Your task to perform on an android device: install app "Viber Messenger" Image 0: 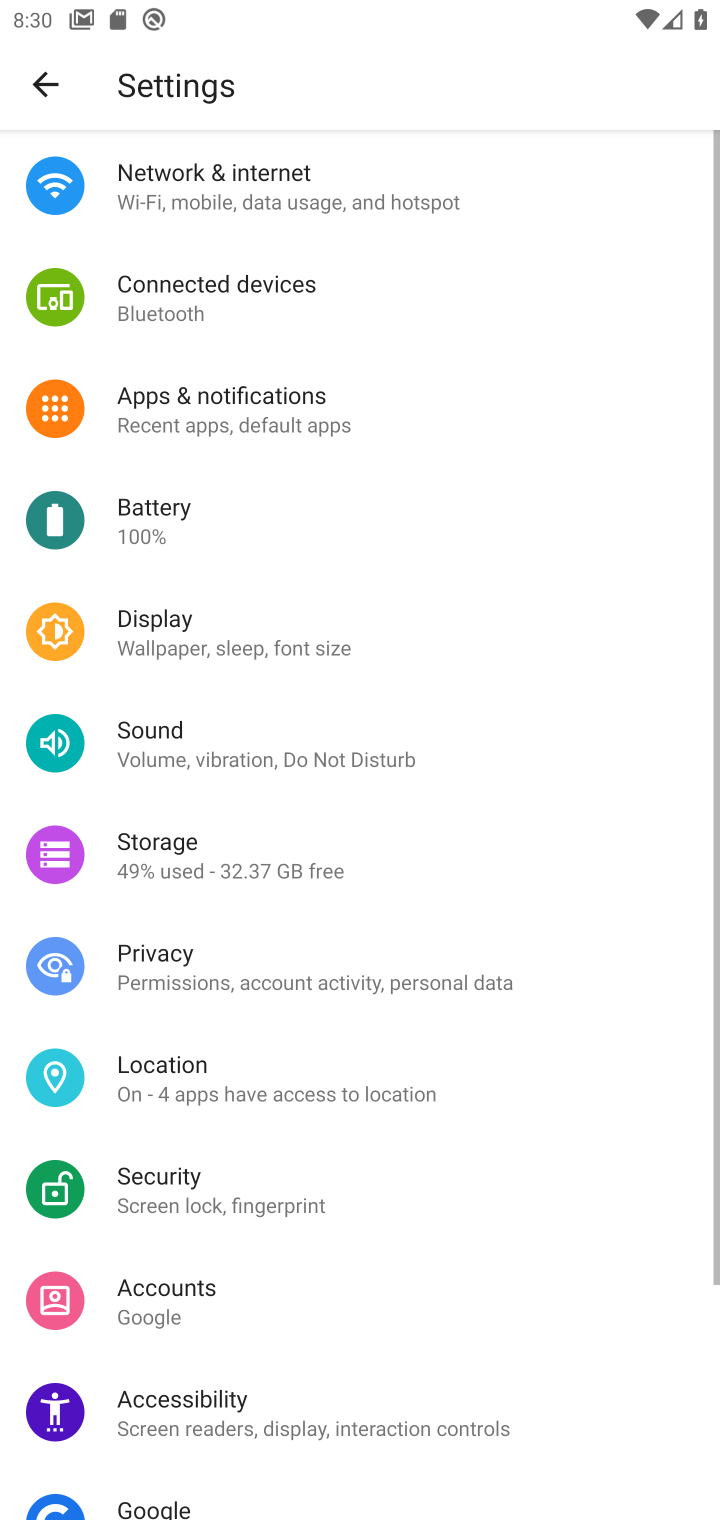
Step 0: press home button
Your task to perform on an android device: install app "Viber Messenger" Image 1: 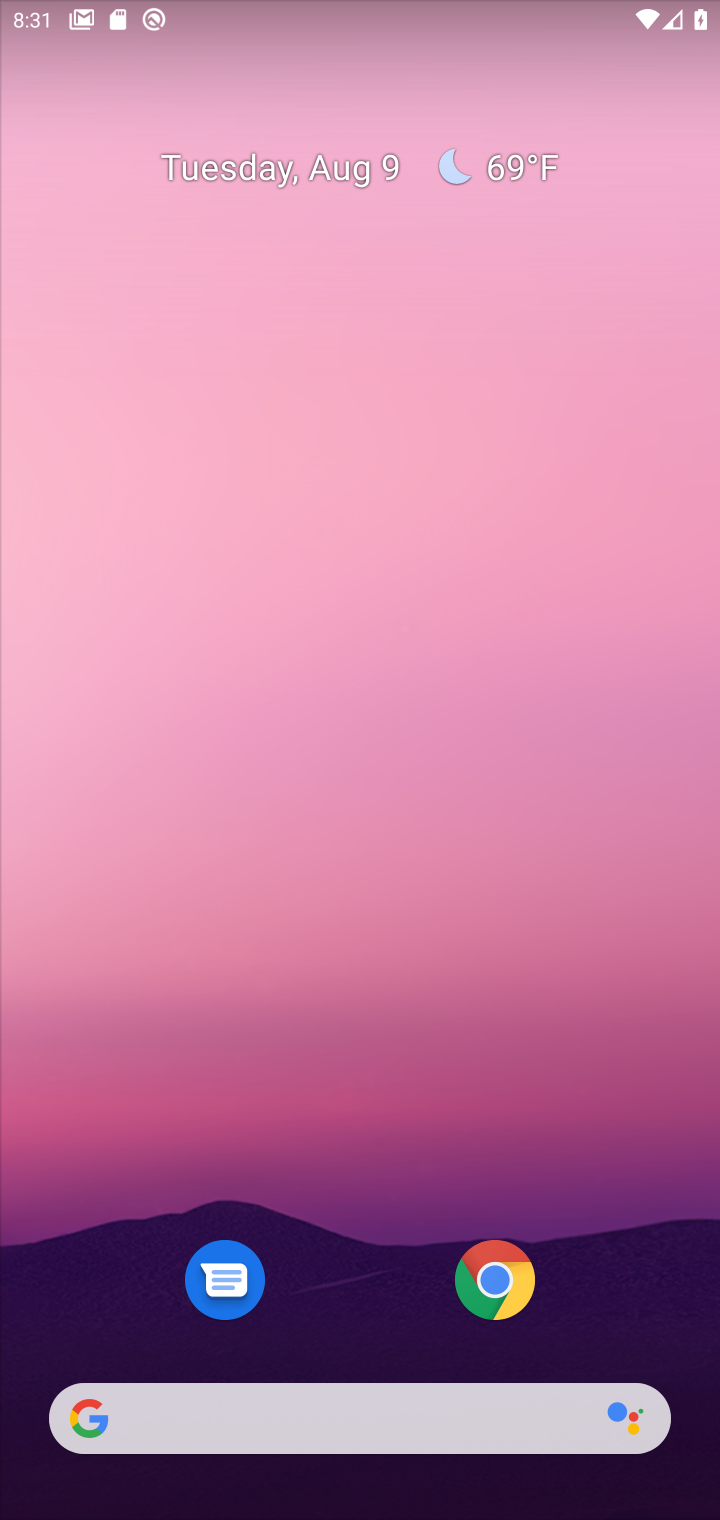
Step 1: drag from (237, 1390) to (179, 99)
Your task to perform on an android device: install app "Viber Messenger" Image 2: 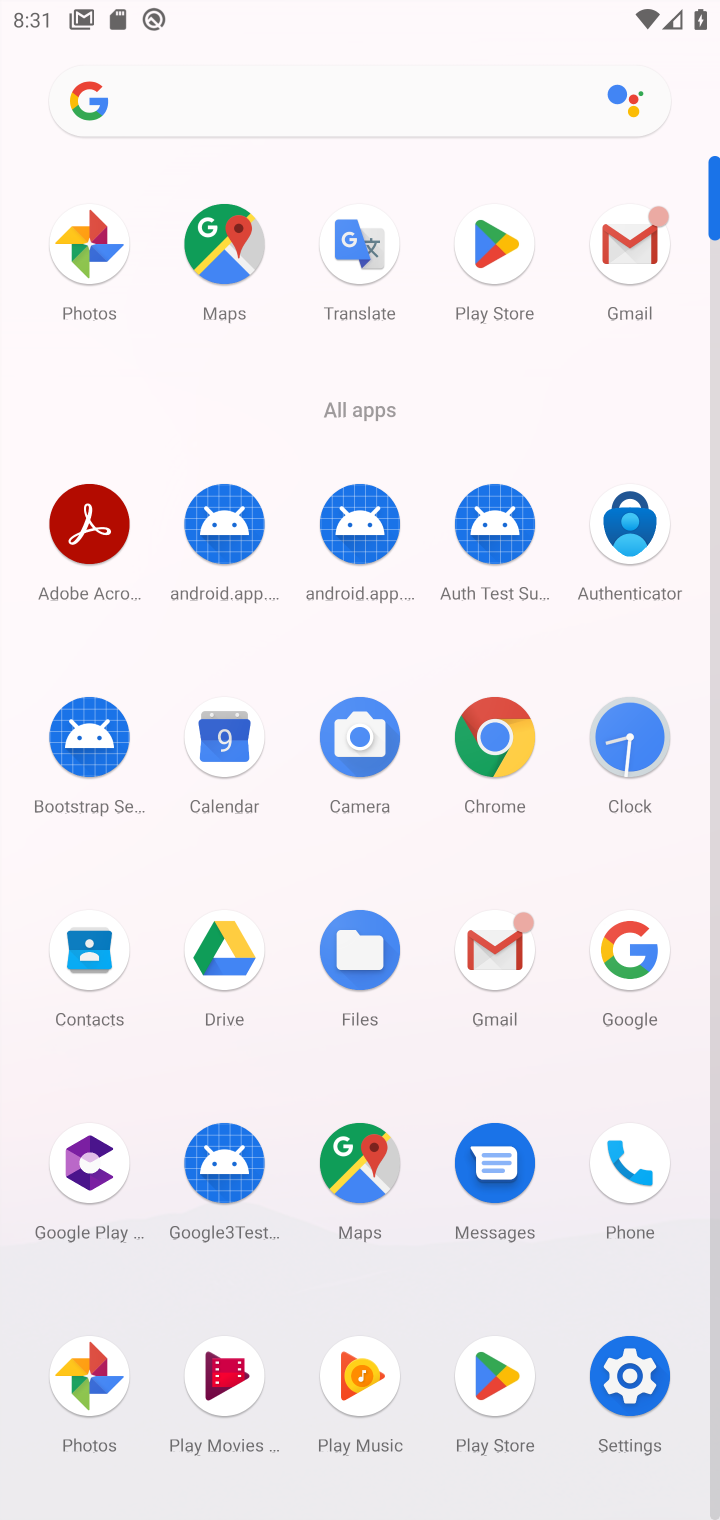
Step 2: click (500, 1400)
Your task to perform on an android device: install app "Viber Messenger" Image 3: 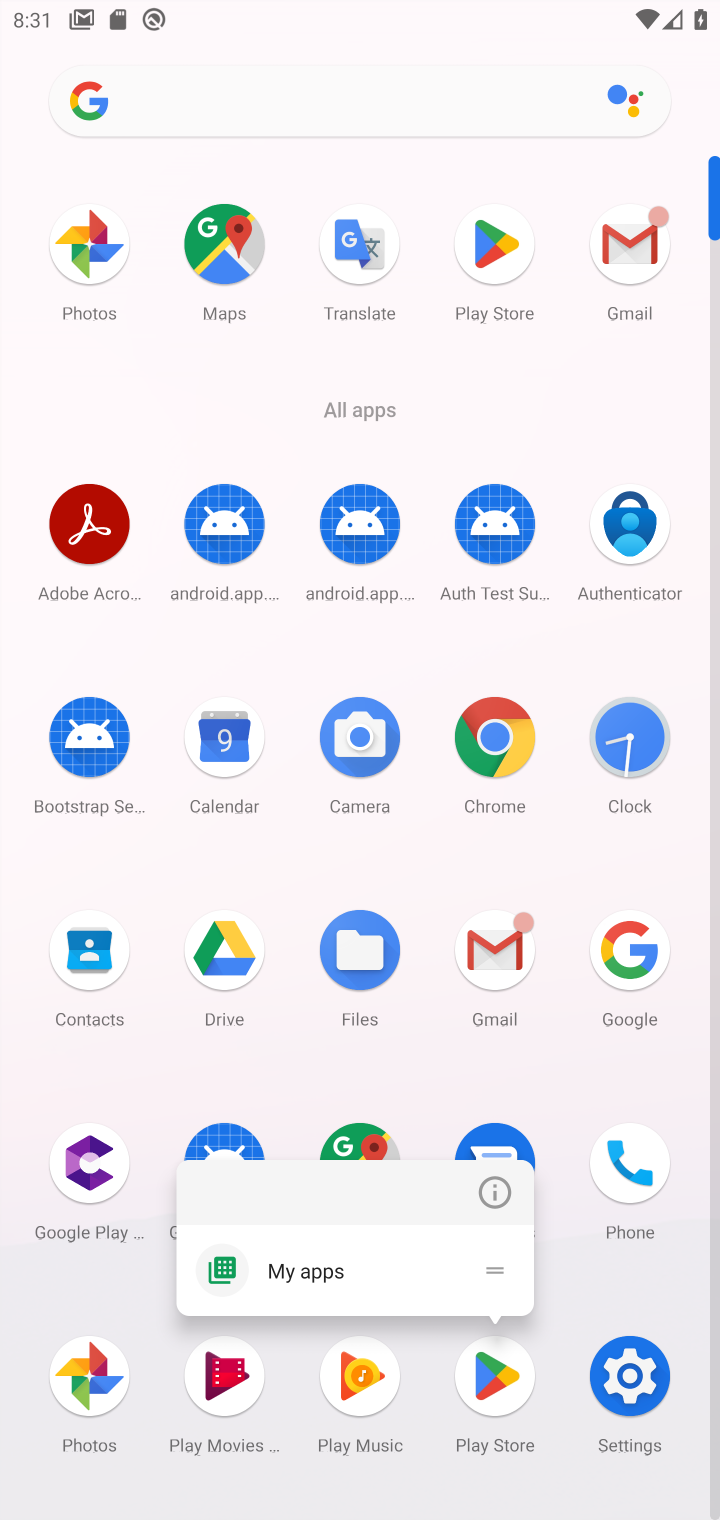
Step 3: click (497, 1371)
Your task to perform on an android device: install app "Viber Messenger" Image 4: 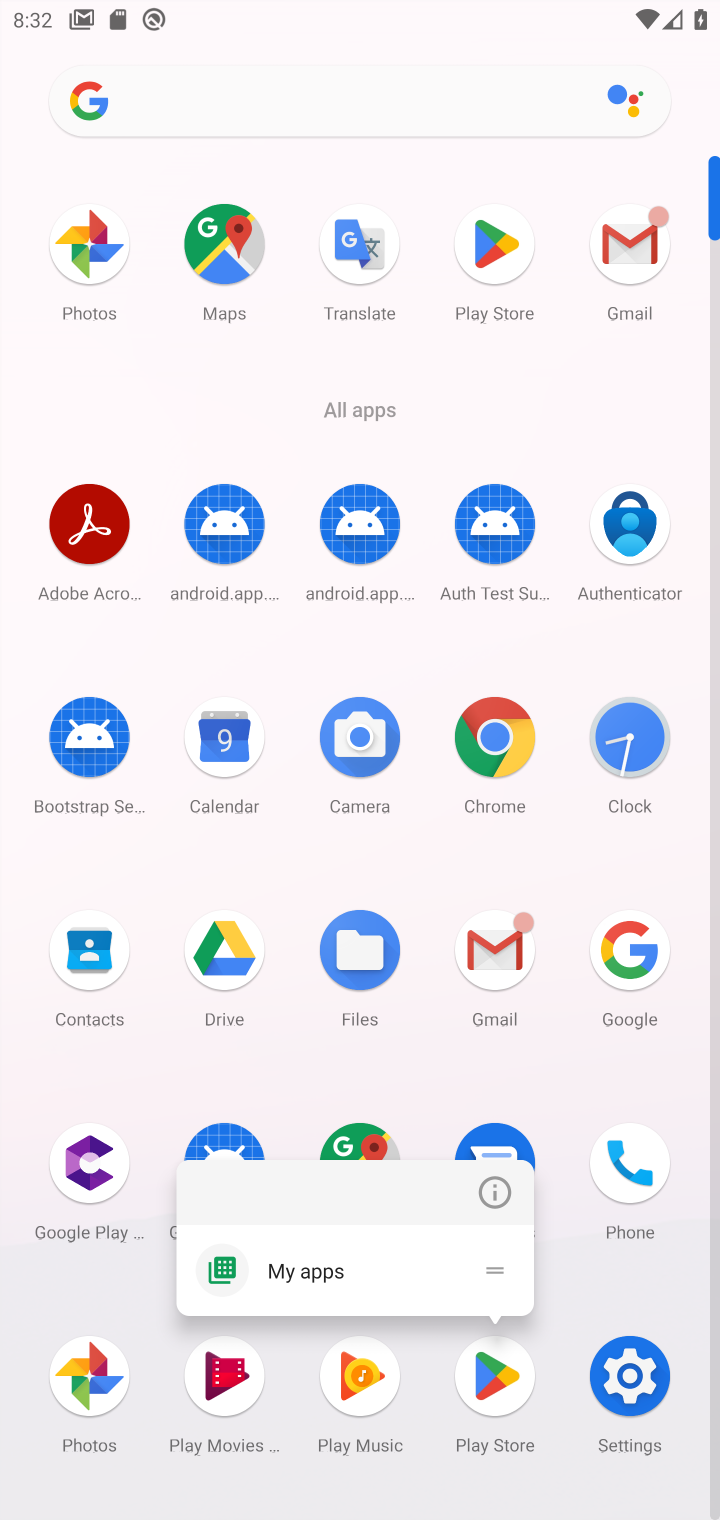
Step 4: click (486, 257)
Your task to perform on an android device: install app "Viber Messenger" Image 5: 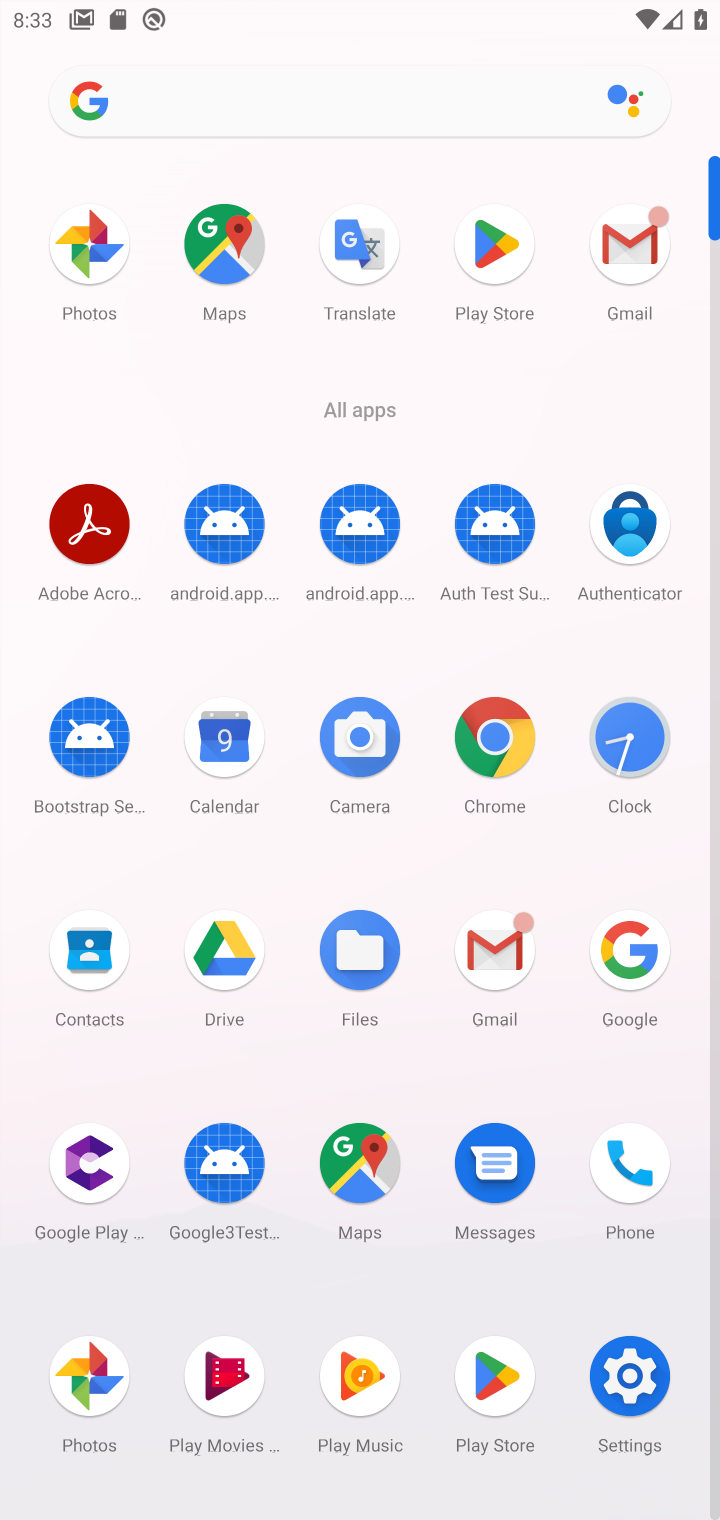
Step 5: click (497, 248)
Your task to perform on an android device: install app "Viber Messenger" Image 6: 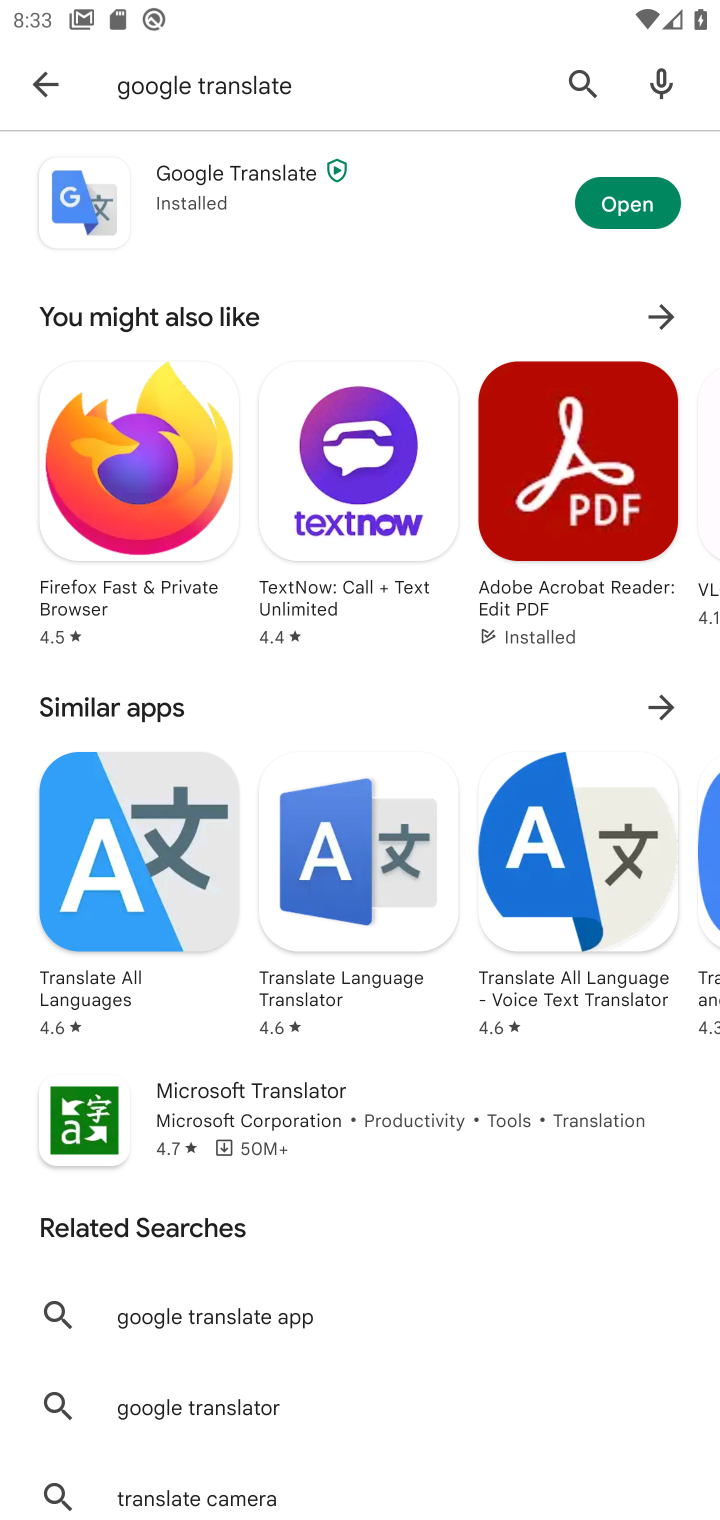
Step 6: click (582, 79)
Your task to perform on an android device: install app "Viber Messenger" Image 7: 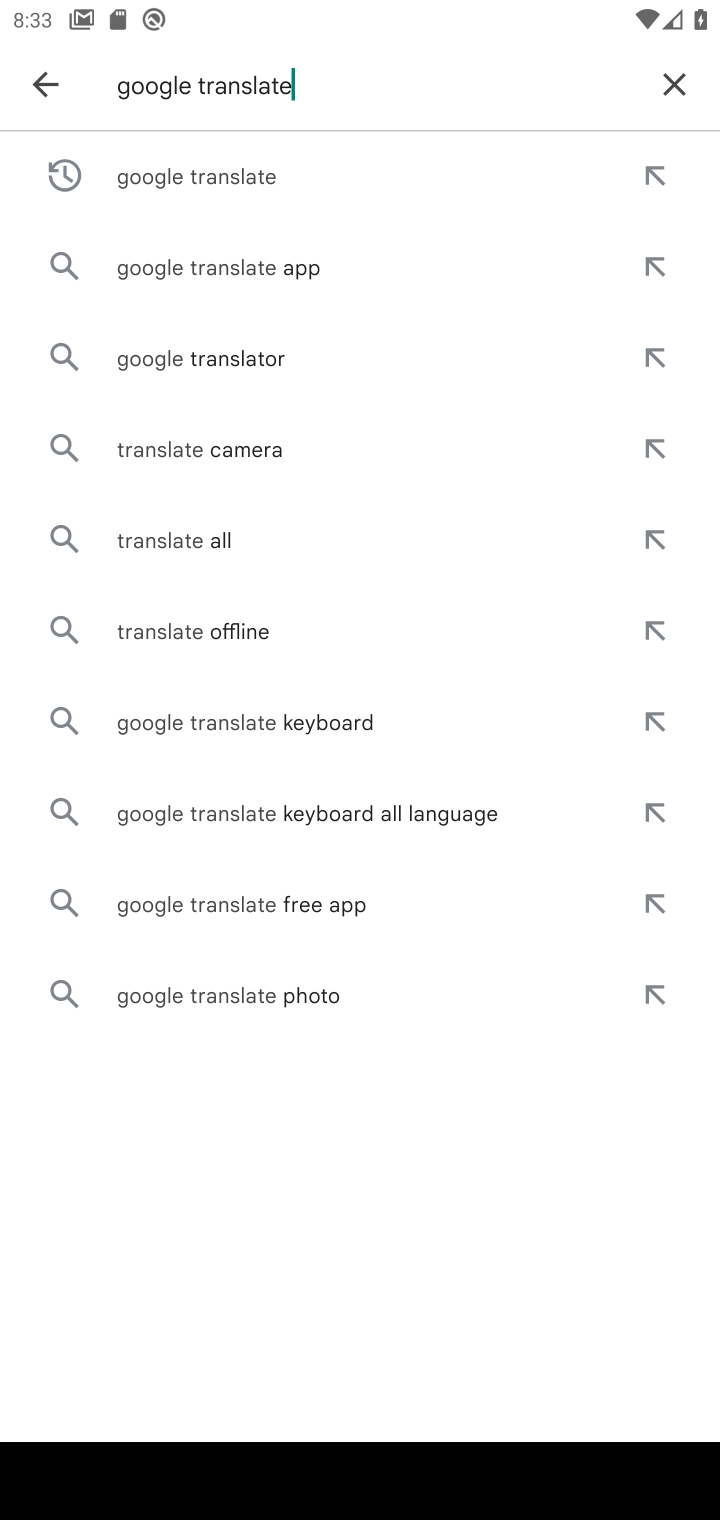
Step 7: click (670, 86)
Your task to perform on an android device: install app "Viber Messenger" Image 8: 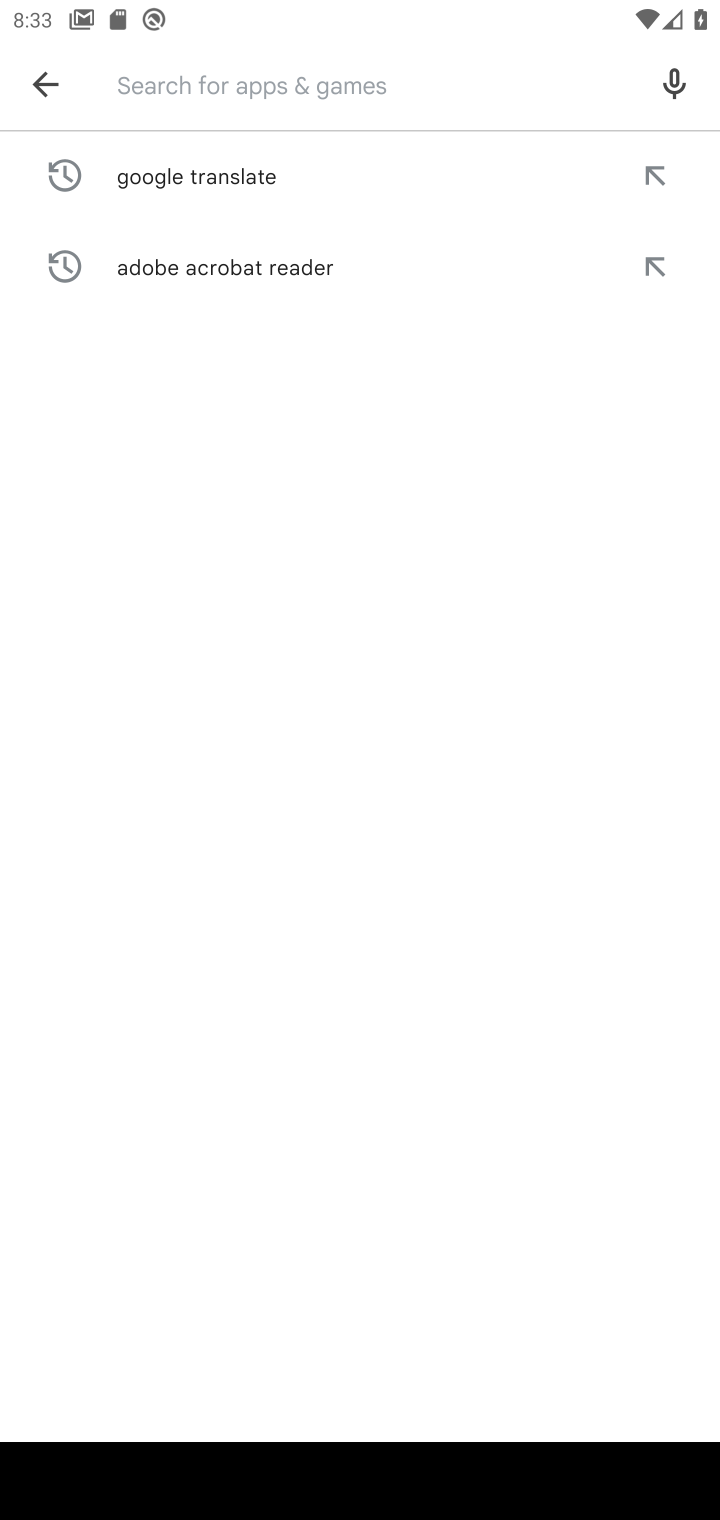
Step 8: type "viber messenger"
Your task to perform on an android device: install app "Viber Messenger" Image 9: 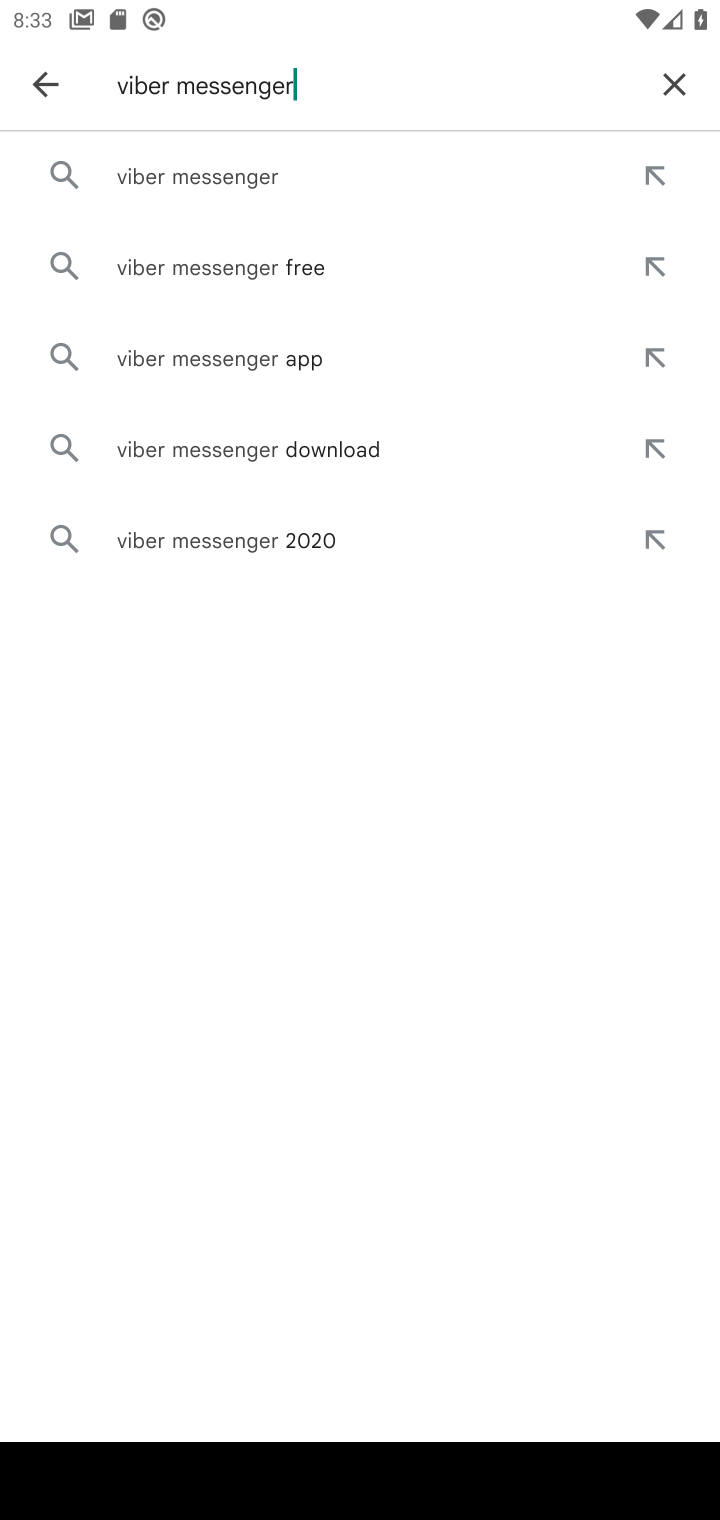
Step 9: click (210, 191)
Your task to perform on an android device: install app "Viber Messenger" Image 10: 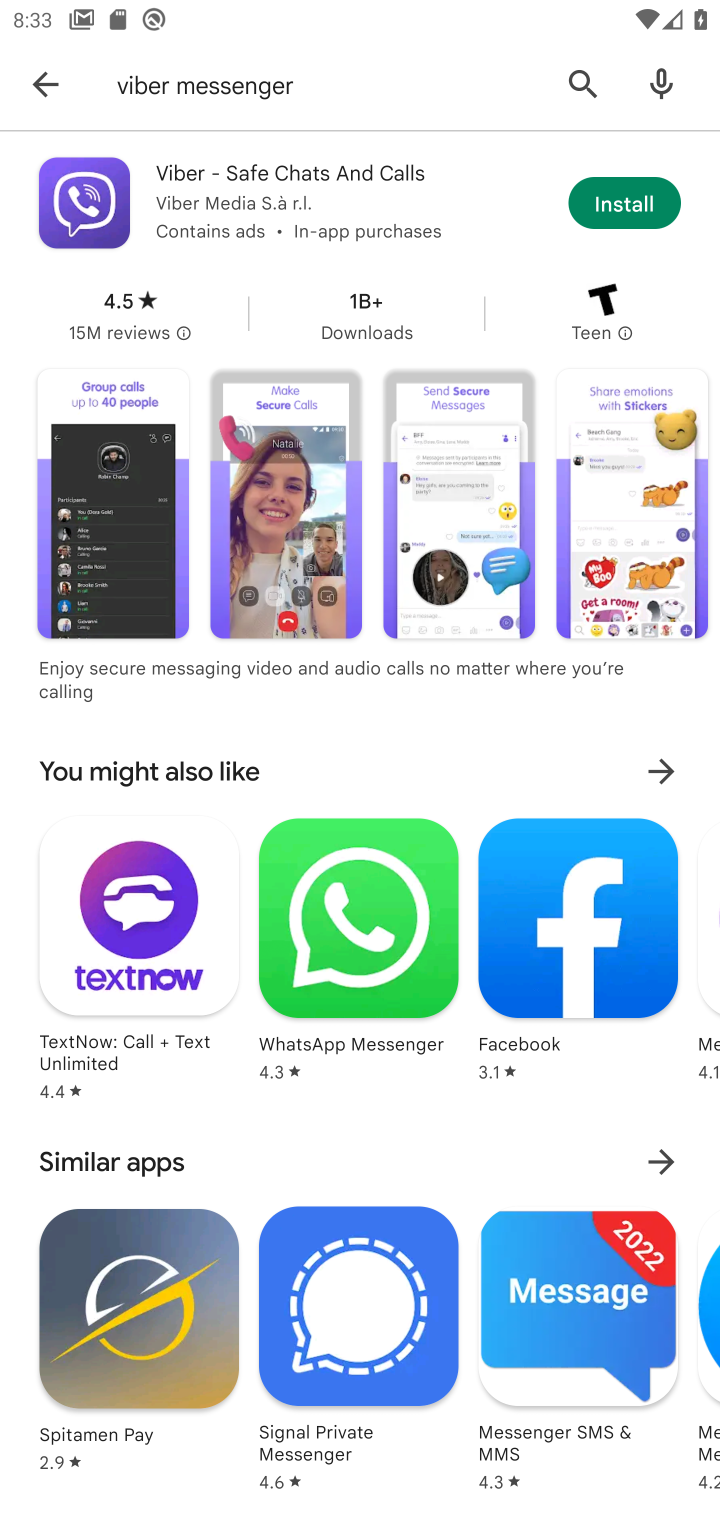
Step 10: click (635, 198)
Your task to perform on an android device: install app "Viber Messenger" Image 11: 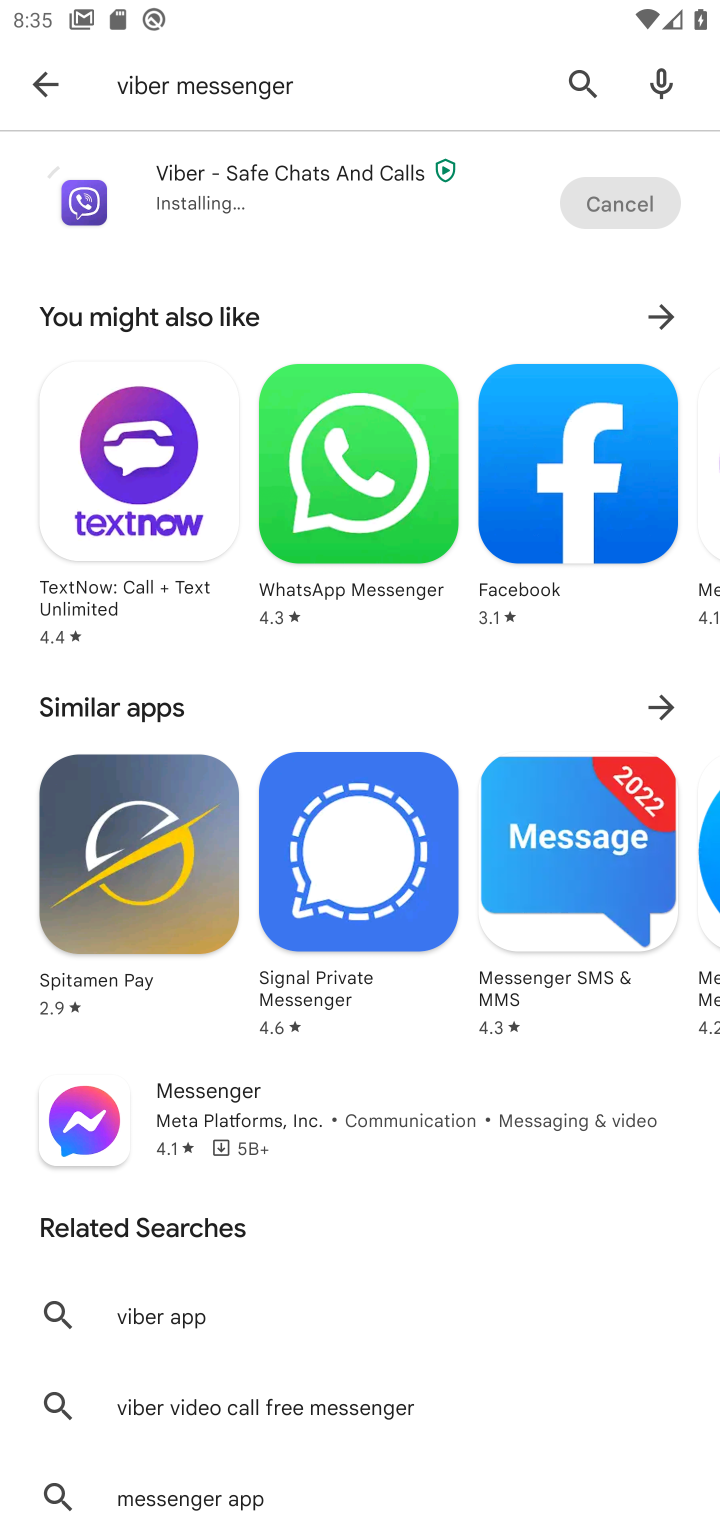
Step 11: task complete